Your task to perform on an android device: open app "Google Sheets" (install if not already installed) Image 0: 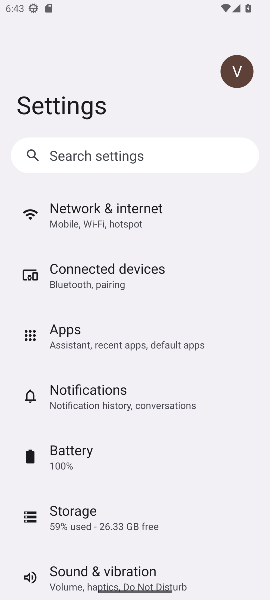
Step 0: task complete